Your task to perform on an android device: turn on showing notifications on the lock screen Image 0: 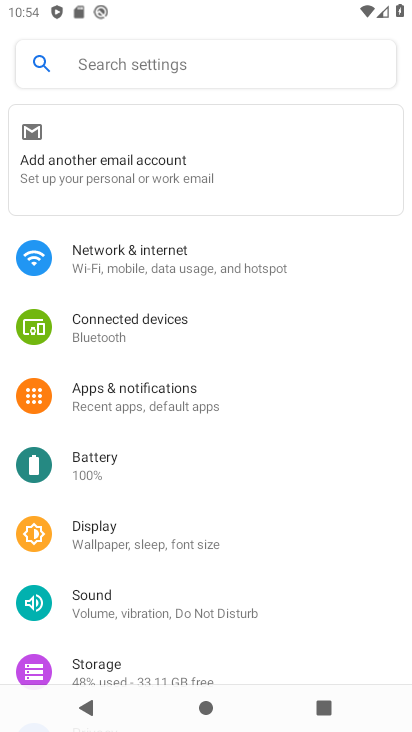
Step 0: click (157, 394)
Your task to perform on an android device: turn on showing notifications on the lock screen Image 1: 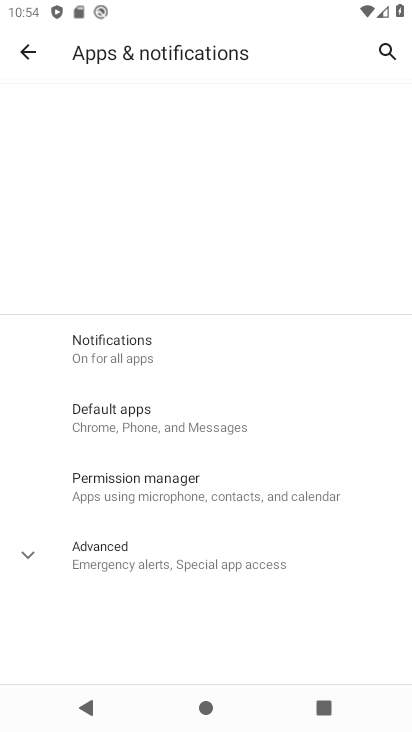
Step 1: click (156, 357)
Your task to perform on an android device: turn on showing notifications on the lock screen Image 2: 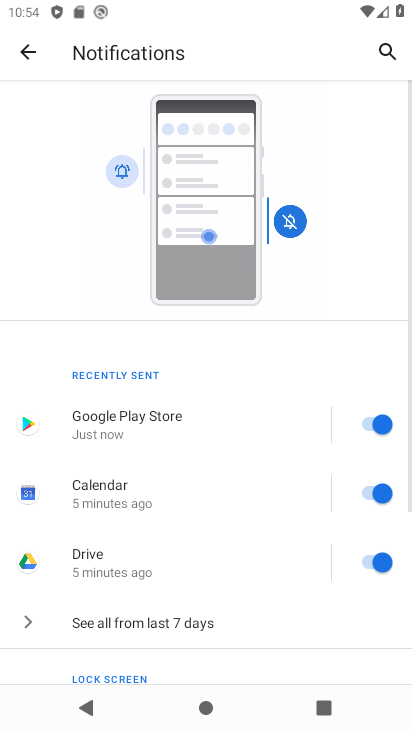
Step 2: drag from (159, 561) to (160, 125)
Your task to perform on an android device: turn on showing notifications on the lock screen Image 3: 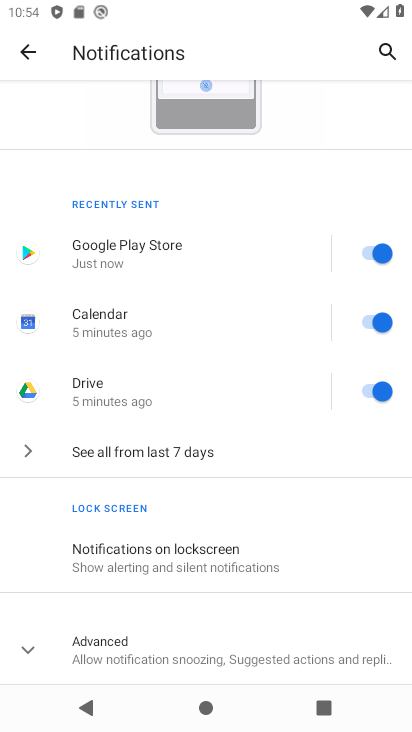
Step 3: click (165, 570)
Your task to perform on an android device: turn on showing notifications on the lock screen Image 4: 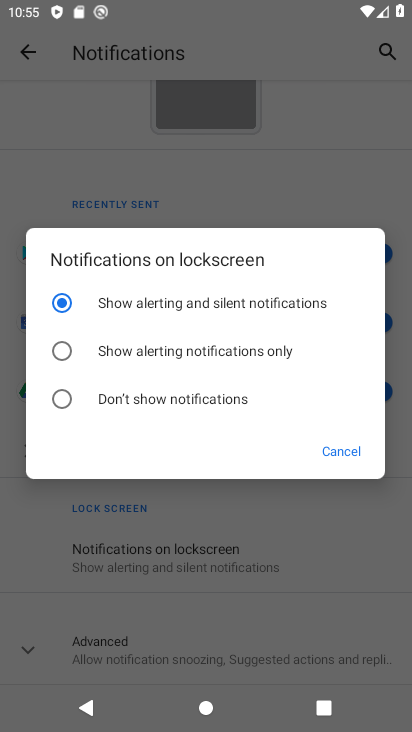
Step 4: task complete